Your task to perform on an android device: Show me the alarms in the clock app Image 0: 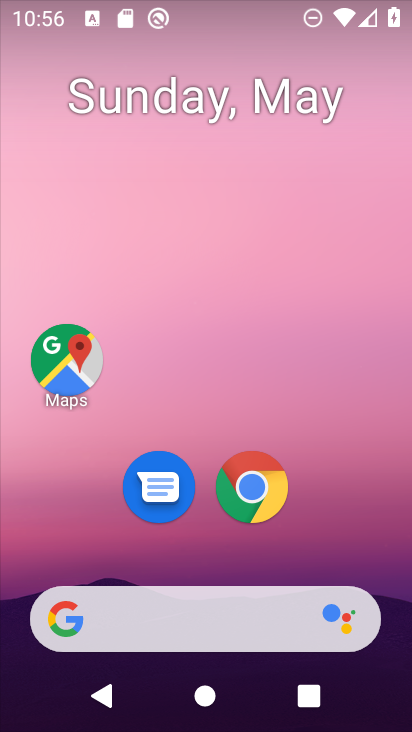
Step 0: drag from (223, 627) to (208, 136)
Your task to perform on an android device: Show me the alarms in the clock app Image 1: 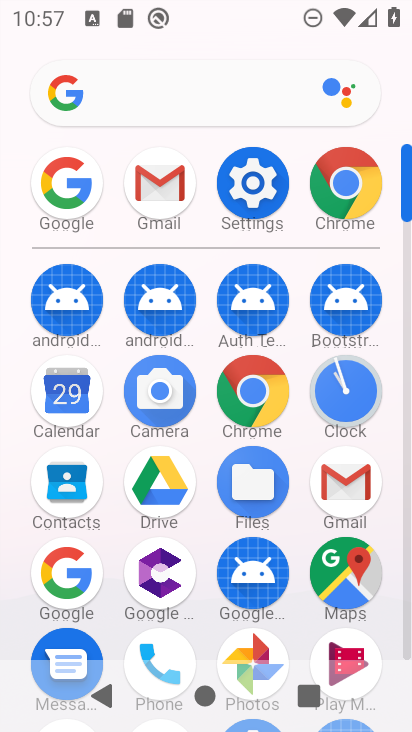
Step 1: click (342, 396)
Your task to perform on an android device: Show me the alarms in the clock app Image 2: 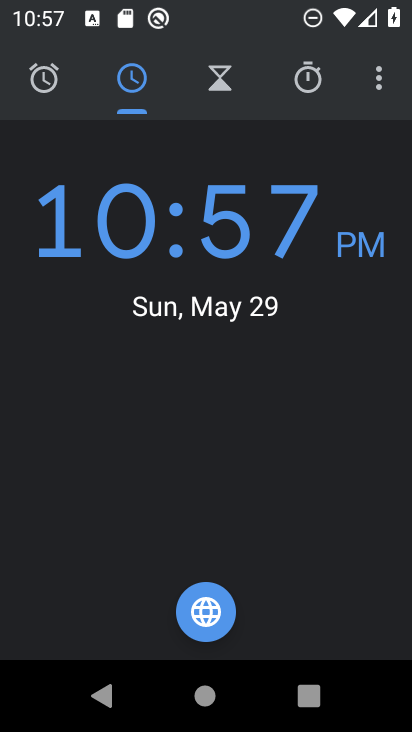
Step 2: click (64, 100)
Your task to perform on an android device: Show me the alarms in the clock app Image 3: 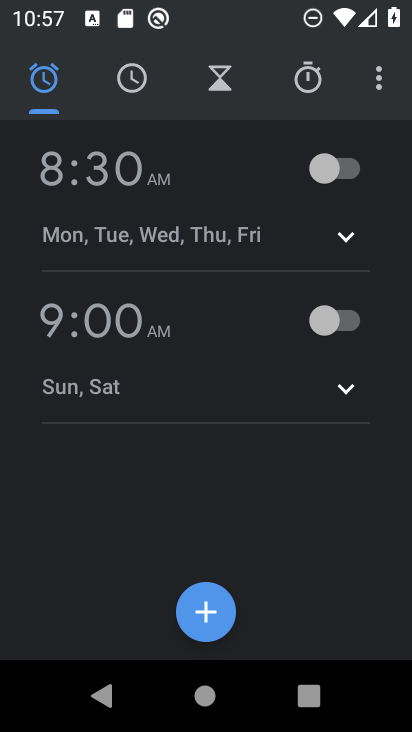
Step 3: task complete